Your task to perform on an android device: set an alarm Image 0: 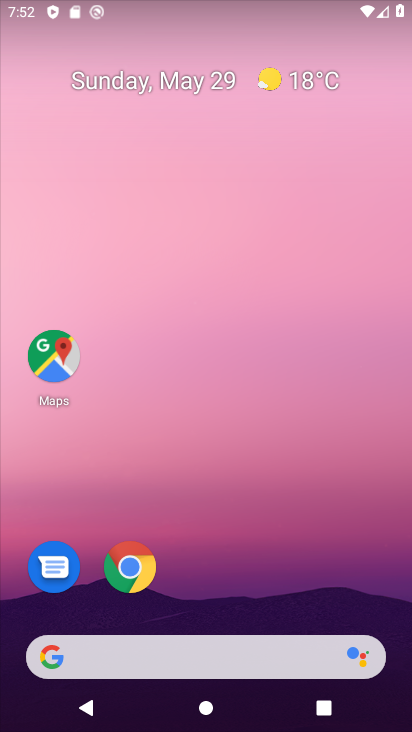
Step 0: drag from (402, 686) to (351, 250)
Your task to perform on an android device: set an alarm Image 1: 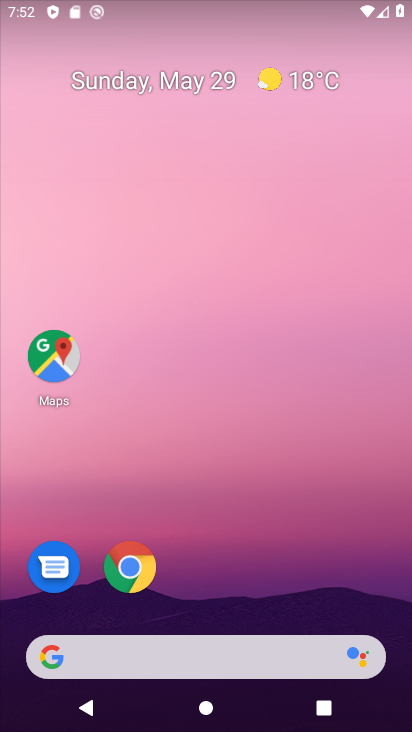
Step 1: drag from (383, 614) to (360, 247)
Your task to perform on an android device: set an alarm Image 2: 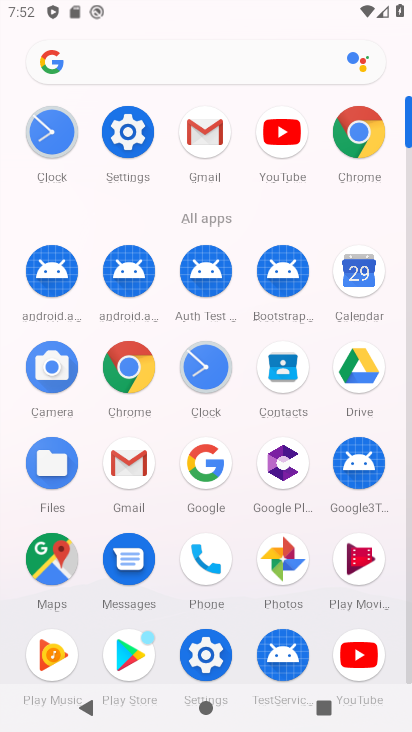
Step 2: click (199, 371)
Your task to perform on an android device: set an alarm Image 3: 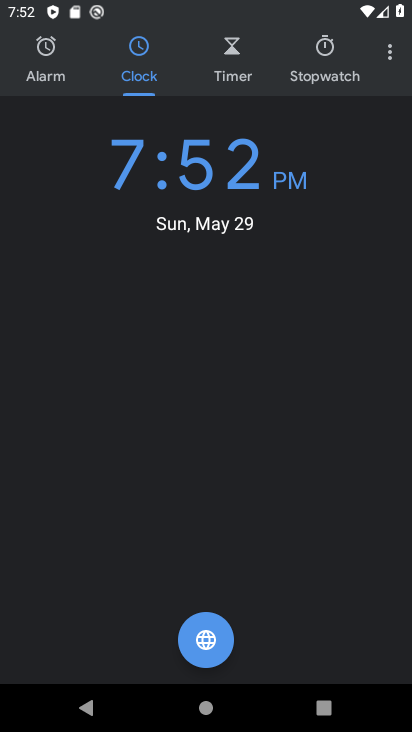
Step 3: click (42, 47)
Your task to perform on an android device: set an alarm Image 4: 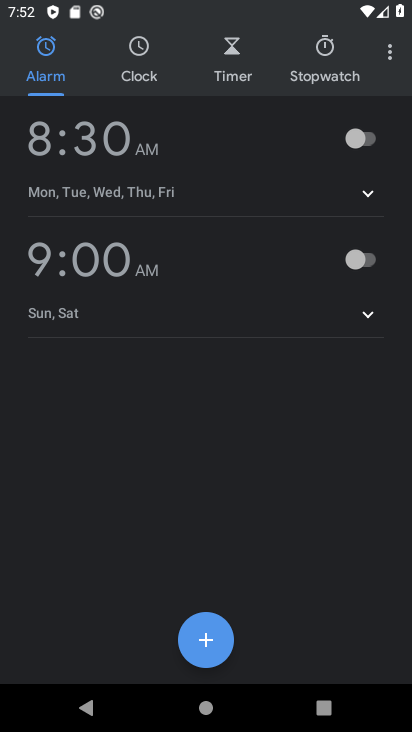
Step 4: click (351, 140)
Your task to perform on an android device: set an alarm Image 5: 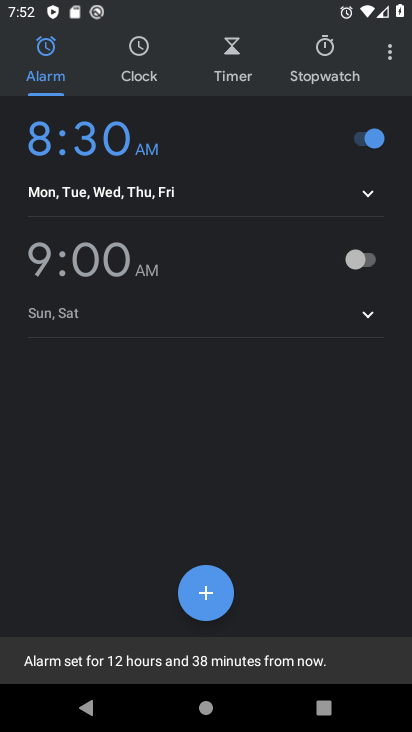
Step 5: task complete